Your task to perform on an android device: What's on my calendar tomorrow? Image 0: 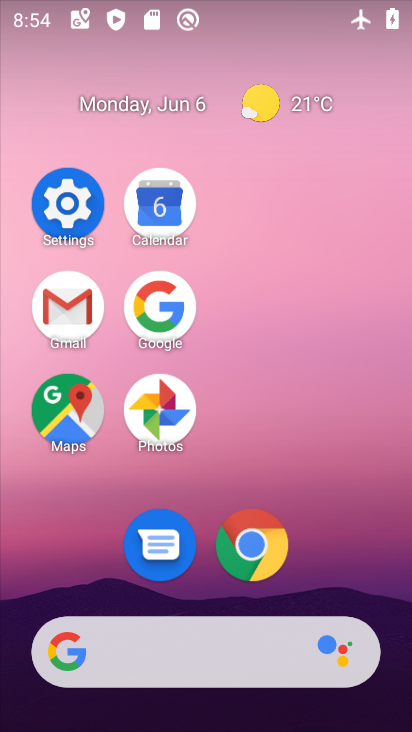
Step 0: click (139, 201)
Your task to perform on an android device: What's on my calendar tomorrow? Image 1: 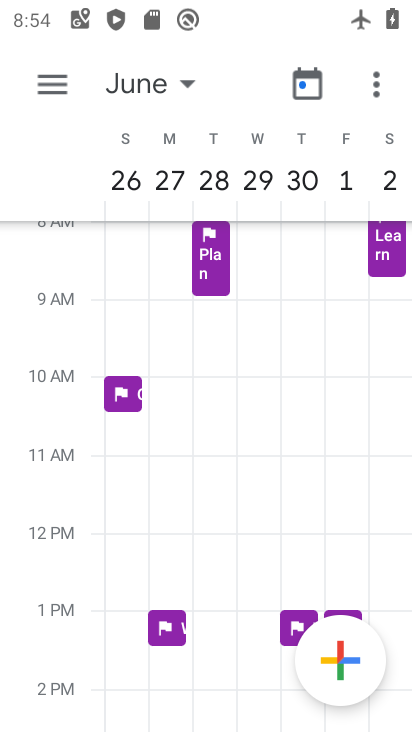
Step 1: click (77, 106)
Your task to perform on an android device: What's on my calendar tomorrow? Image 2: 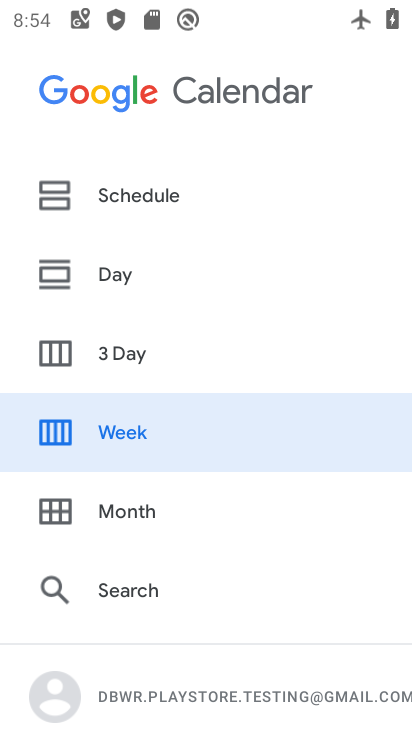
Step 2: click (181, 449)
Your task to perform on an android device: What's on my calendar tomorrow? Image 3: 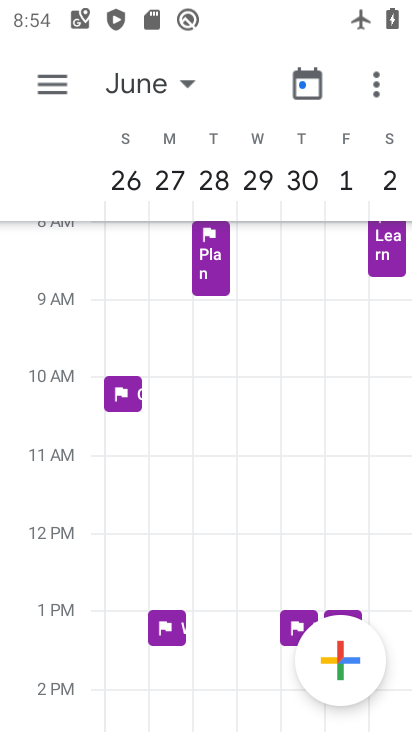
Step 3: click (126, 92)
Your task to perform on an android device: What's on my calendar tomorrow? Image 4: 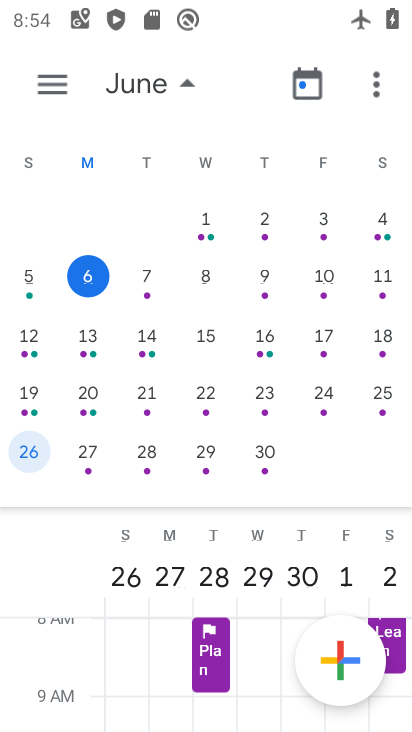
Step 4: click (159, 288)
Your task to perform on an android device: What's on my calendar tomorrow? Image 5: 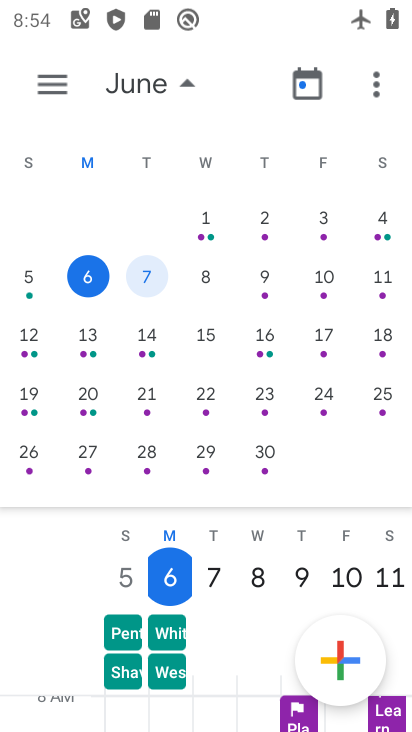
Step 5: click (210, 565)
Your task to perform on an android device: What's on my calendar tomorrow? Image 6: 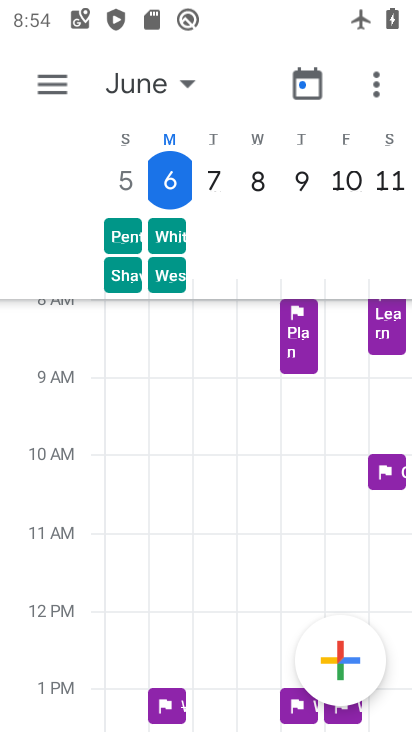
Step 6: task complete